Your task to perform on an android device: Open Reddit.com Image 0: 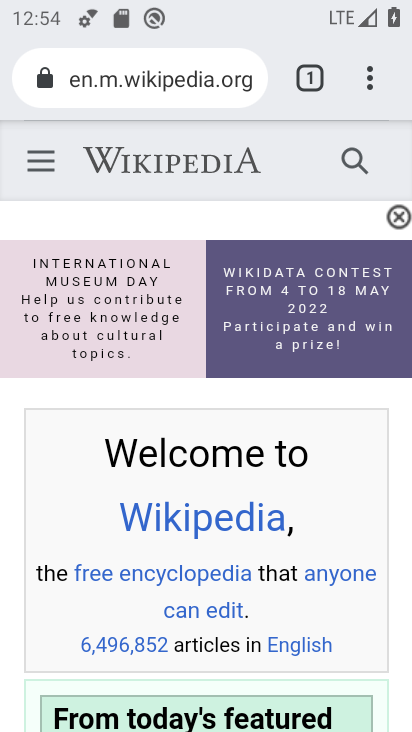
Step 0: click (370, 78)
Your task to perform on an android device: Open Reddit.com Image 1: 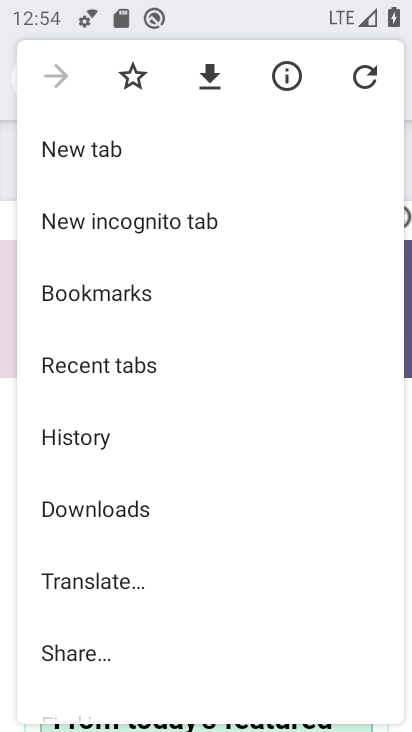
Step 1: click (98, 152)
Your task to perform on an android device: Open Reddit.com Image 2: 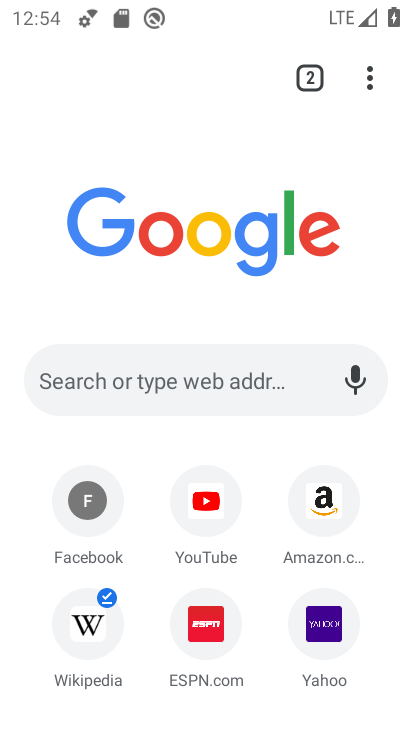
Step 2: click (176, 389)
Your task to perform on an android device: Open Reddit.com Image 3: 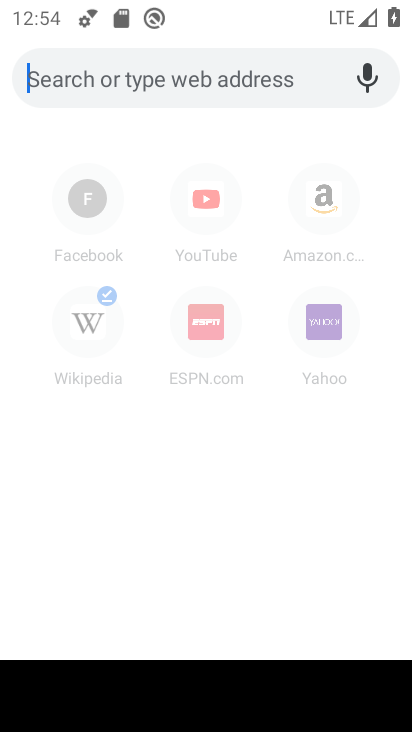
Step 3: type "Reddit.com"
Your task to perform on an android device: Open Reddit.com Image 4: 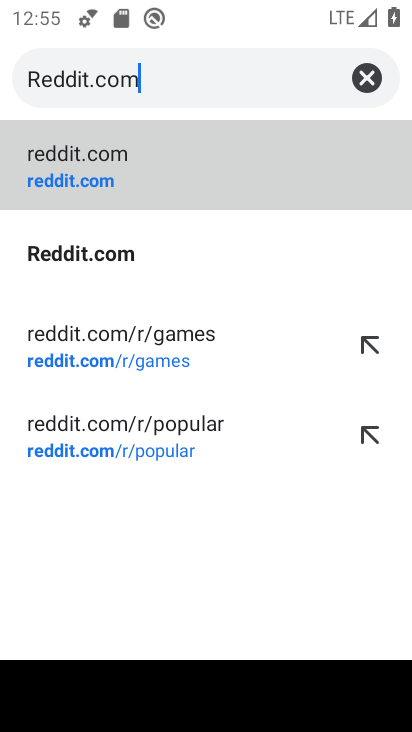
Step 4: click (154, 173)
Your task to perform on an android device: Open Reddit.com Image 5: 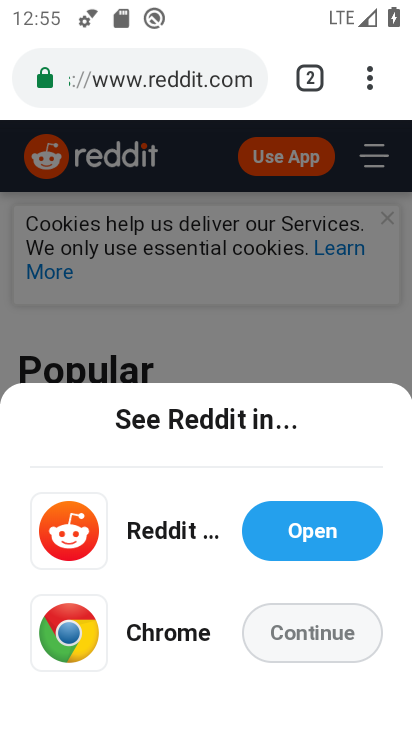
Step 5: task complete